Your task to perform on an android device: View the shopping cart on target. Search for usb-a to usb-b on target, select the first entry, and add it to the cart. Image 0: 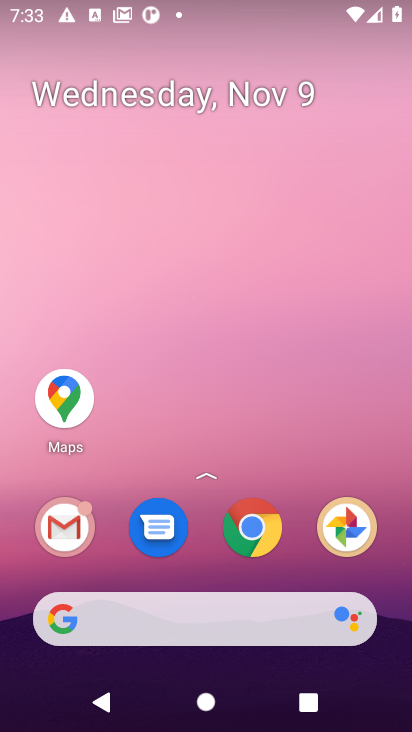
Step 0: click (255, 536)
Your task to perform on an android device: View the shopping cart on target. Search for usb-a to usb-b on target, select the first entry, and add it to the cart. Image 1: 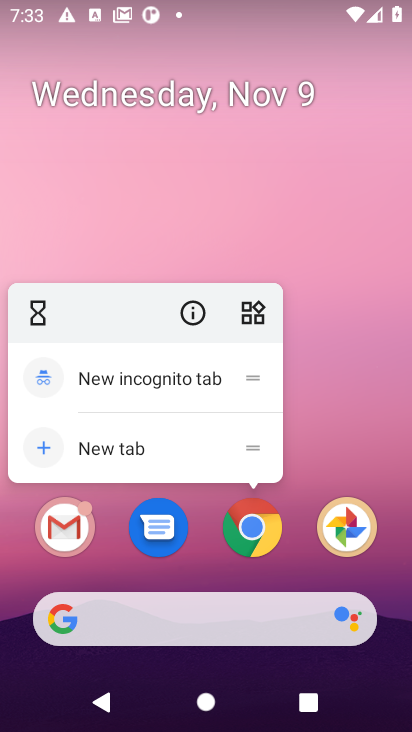
Step 1: click (254, 535)
Your task to perform on an android device: View the shopping cart on target. Search for usb-a to usb-b on target, select the first entry, and add it to the cart. Image 2: 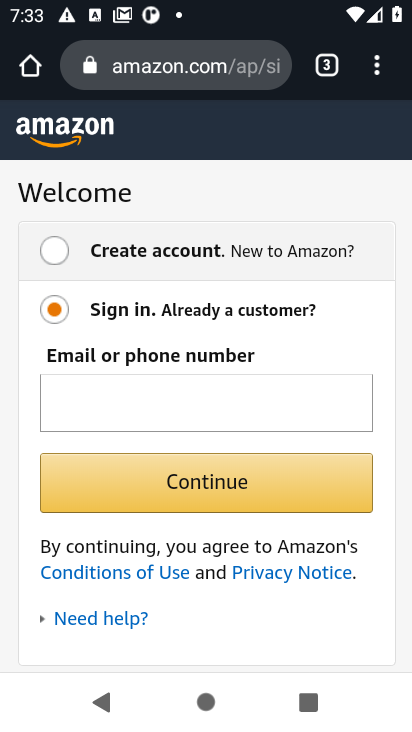
Step 2: click (197, 76)
Your task to perform on an android device: View the shopping cart on target. Search for usb-a to usb-b on target, select the first entry, and add it to the cart. Image 3: 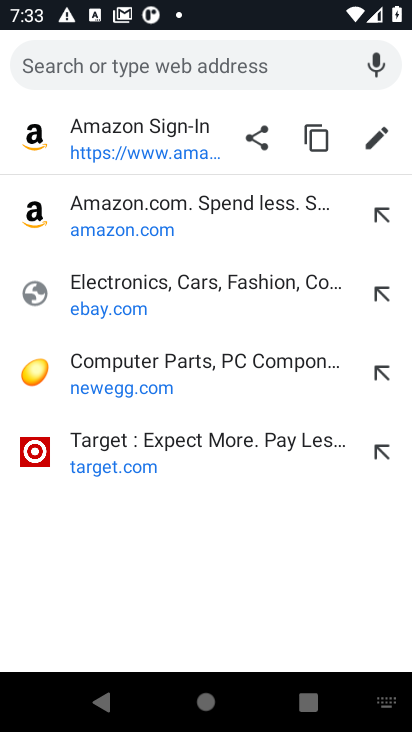
Step 3: click (96, 463)
Your task to perform on an android device: View the shopping cart on target. Search for usb-a to usb-b on target, select the first entry, and add it to the cart. Image 4: 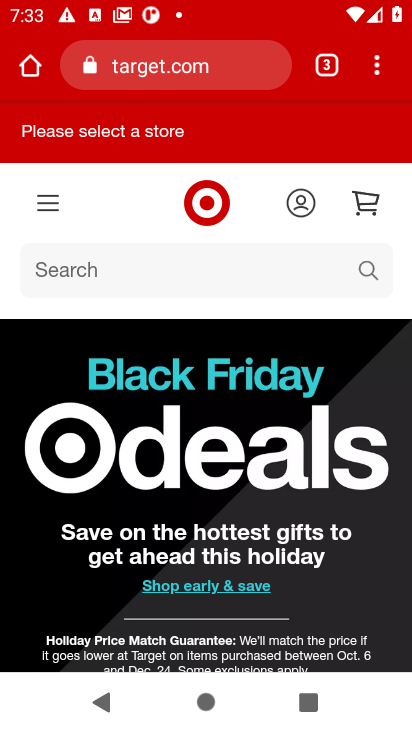
Step 4: click (369, 201)
Your task to perform on an android device: View the shopping cart on target. Search for usb-a to usb-b on target, select the first entry, and add it to the cart. Image 5: 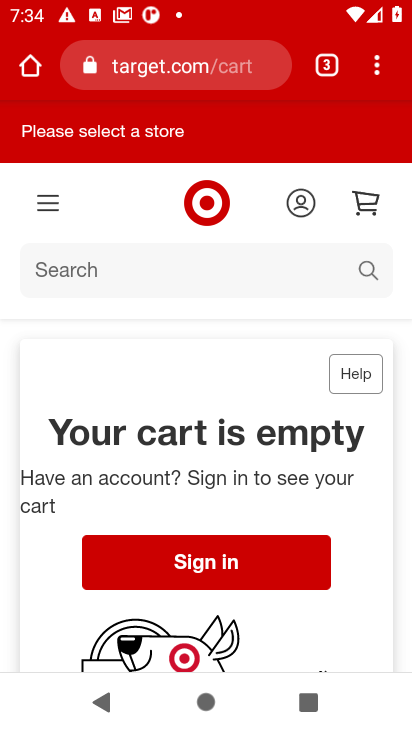
Step 5: click (369, 264)
Your task to perform on an android device: View the shopping cart on target. Search for usb-a to usb-b on target, select the first entry, and add it to the cart. Image 6: 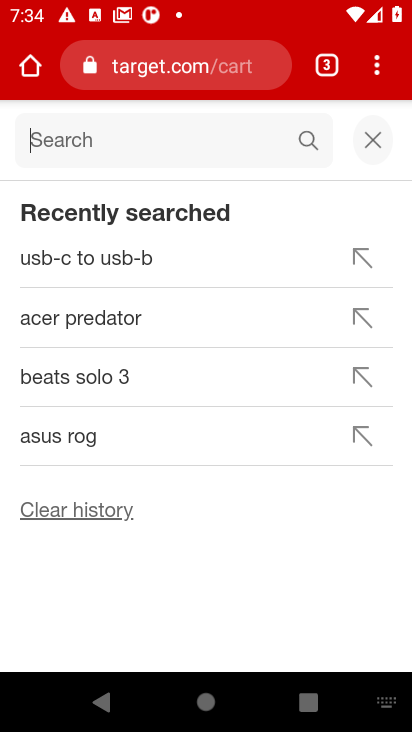
Step 6: type "usb-a to usb-b"
Your task to perform on an android device: View the shopping cart on target. Search for usb-a to usb-b on target, select the first entry, and add it to the cart. Image 7: 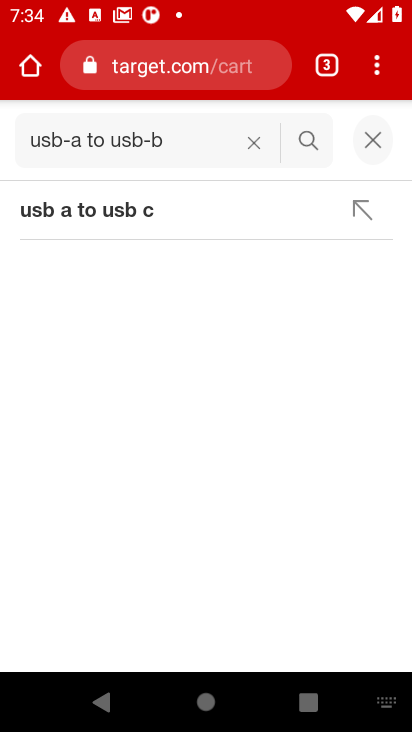
Step 7: click (302, 145)
Your task to perform on an android device: View the shopping cart on target. Search for usb-a to usb-b on target, select the first entry, and add it to the cart. Image 8: 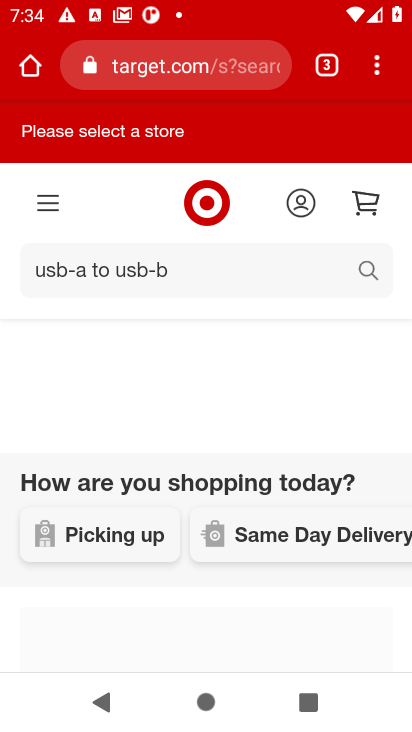
Step 8: drag from (208, 422) to (207, 156)
Your task to perform on an android device: View the shopping cart on target. Search for usb-a to usb-b on target, select the first entry, and add it to the cart. Image 9: 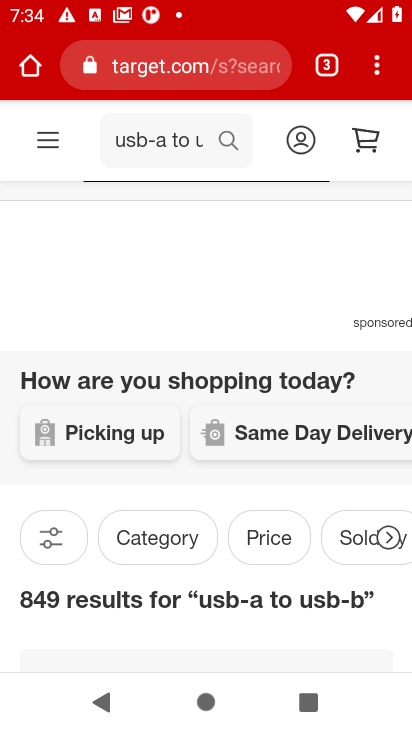
Step 9: drag from (187, 460) to (196, 288)
Your task to perform on an android device: View the shopping cart on target. Search for usb-a to usb-b on target, select the first entry, and add it to the cart. Image 10: 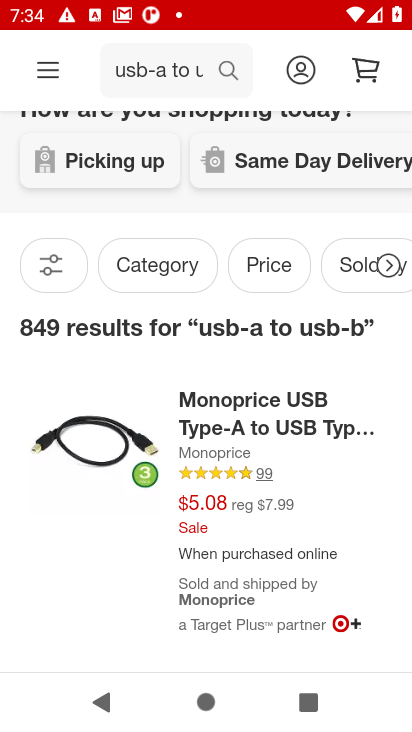
Step 10: click (106, 510)
Your task to perform on an android device: View the shopping cart on target. Search for usb-a to usb-b on target, select the first entry, and add it to the cart. Image 11: 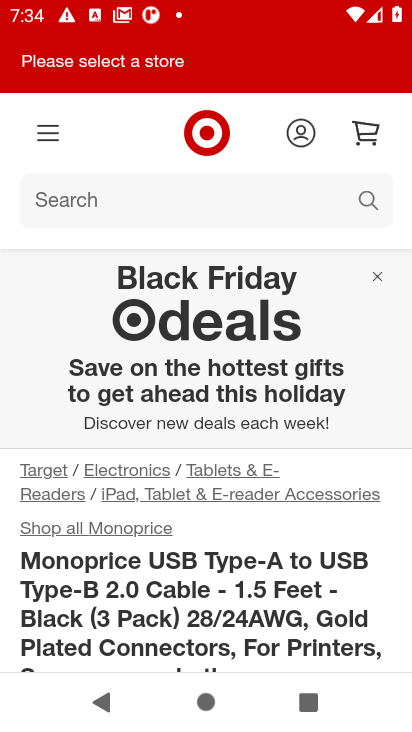
Step 11: drag from (162, 607) to (179, 221)
Your task to perform on an android device: View the shopping cart on target. Search for usb-a to usb-b on target, select the first entry, and add it to the cart. Image 12: 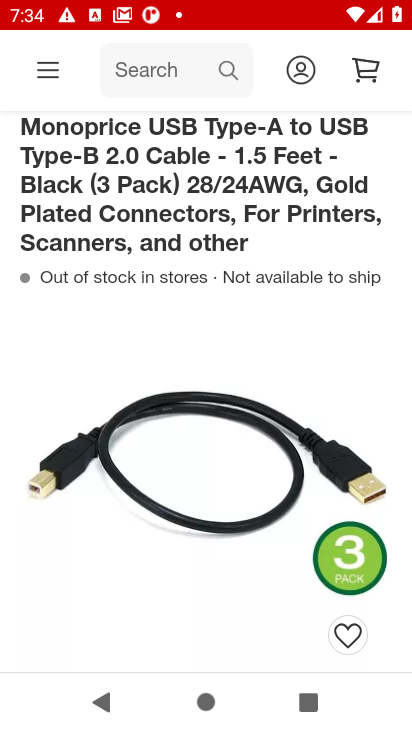
Step 12: drag from (169, 507) to (195, 185)
Your task to perform on an android device: View the shopping cart on target. Search for usb-a to usb-b on target, select the first entry, and add it to the cart. Image 13: 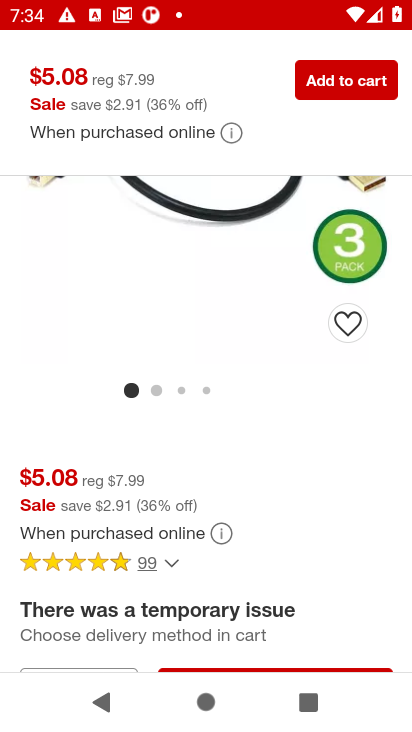
Step 13: drag from (189, 490) to (199, 166)
Your task to perform on an android device: View the shopping cart on target. Search for usb-a to usb-b on target, select the first entry, and add it to the cart. Image 14: 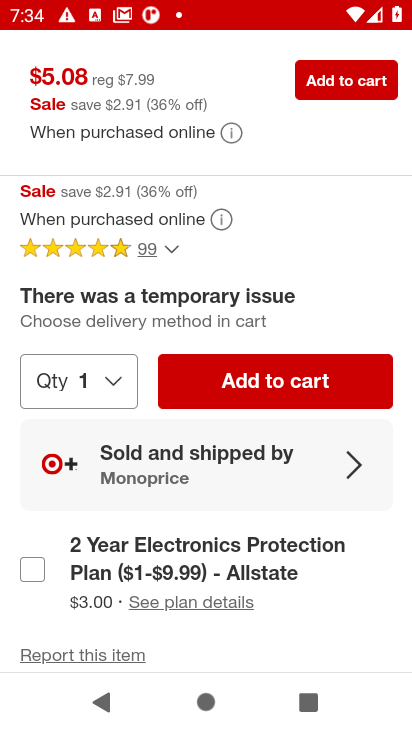
Step 14: click (252, 387)
Your task to perform on an android device: View the shopping cart on target. Search for usb-a to usb-b on target, select the first entry, and add it to the cart. Image 15: 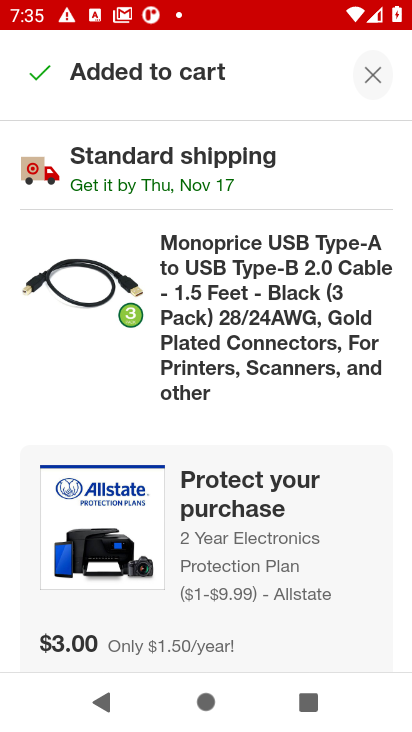
Step 15: drag from (191, 524) to (201, 615)
Your task to perform on an android device: View the shopping cart on target. Search for usb-a to usb-b on target, select the first entry, and add it to the cart. Image 16: 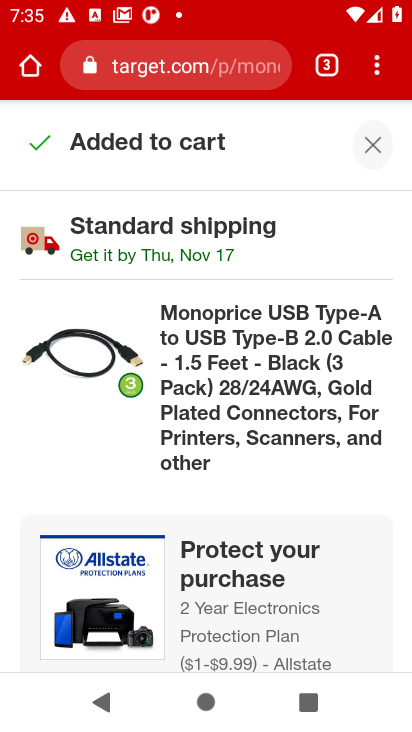
Step 16: click (370, 155)
Your task to perform on an android device: View the shopping cart on target. Search for usb-a to usb-b on target, select the first entry, and add it to the cart. Image 17: 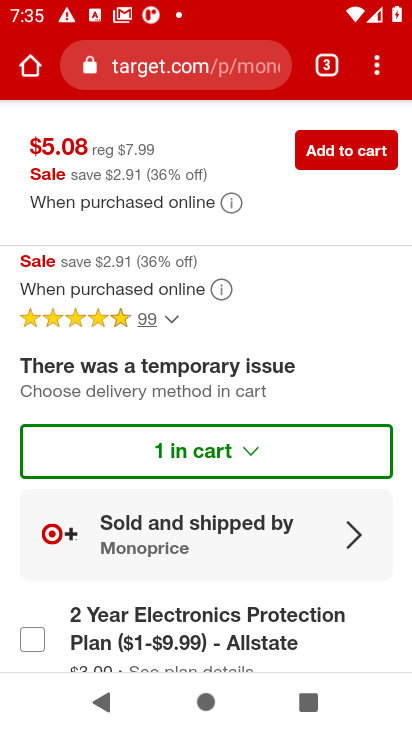
Step 17: task complete